Your task to perform on an android device: change notifications settings Image 0: 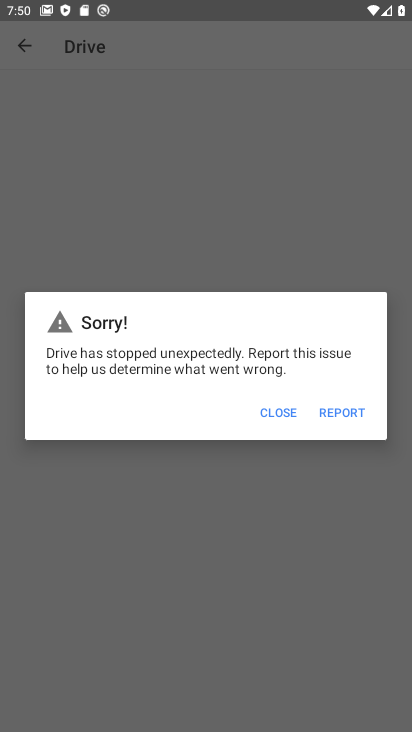
Step 0: press home button
Your task to perform on an android device: change notifications settings Image 1: 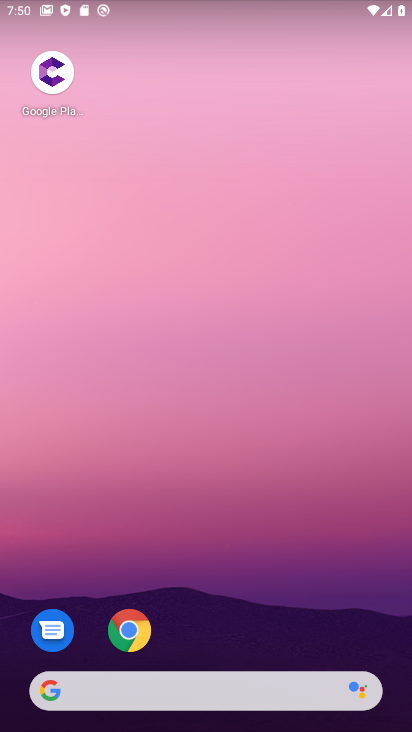
Step 1: drag from (388, 708) to (366, 50)
Your task to perform on an android device: change notifications settings Image 2: 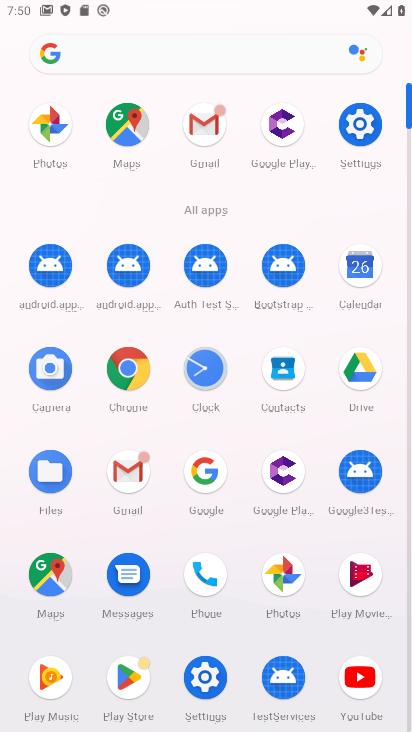
Step 2: click (350, 115)
Your task to perform on an android device: change notifications settings Image 3: 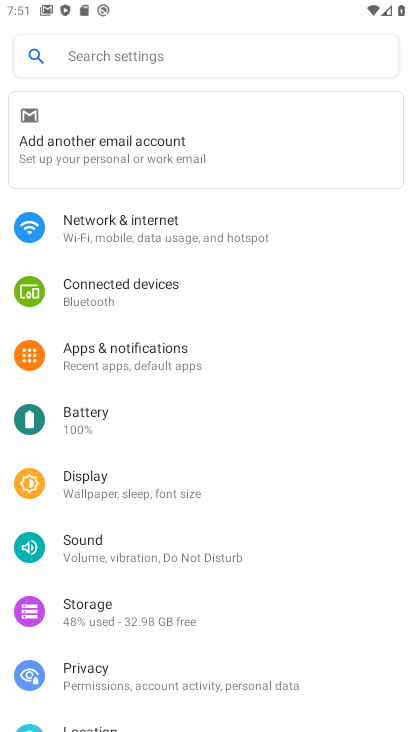
Step 3: click (117, 354)
Your task to perform on an android device: change notifications settings Image 4: 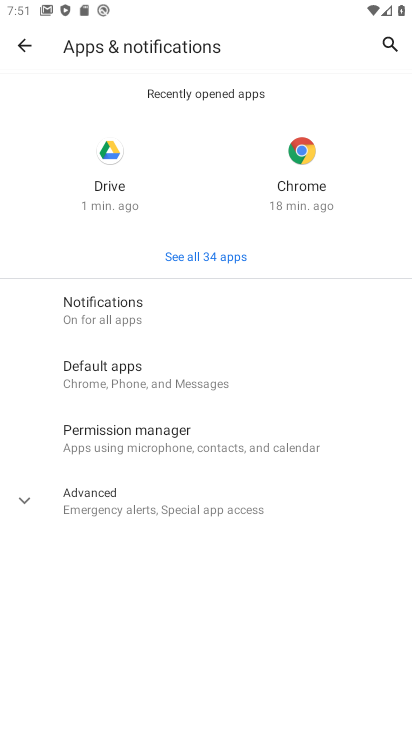
Step 4: click (101, 310)
Your task to perform on an android device: change notifications settings Image 5: 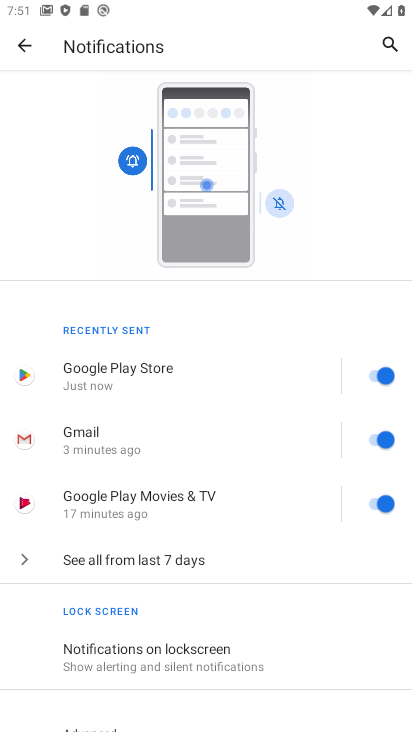
Step 5: click (374, 373)
Your task to perform on an android device: change notifications settings Image 6: 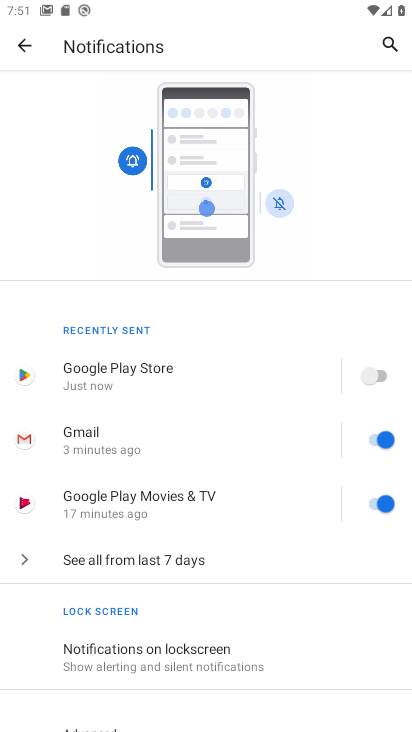
Step 6: click (380, 435)
Your task to perform on an android device: change notifications settings Image 7: 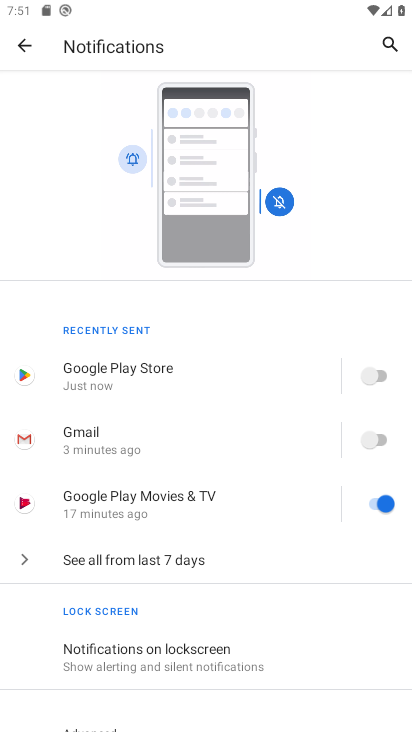
Step 7: click (367, 504)
Your task to perform on an android device: change notifications settings Image 8: 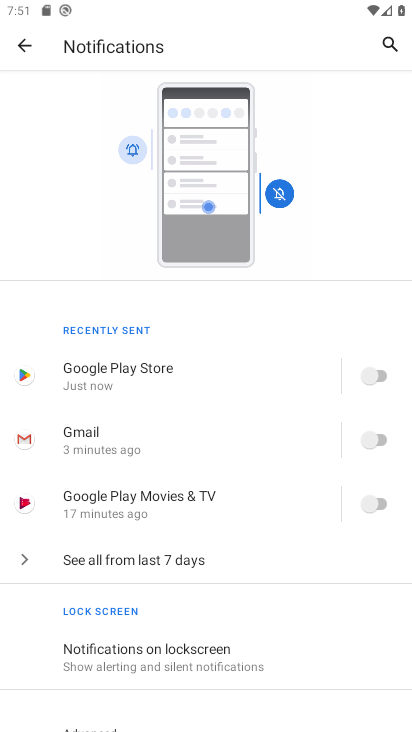
Step 8: task complete